Your task to perform on an android device: Open eBay Image 0: 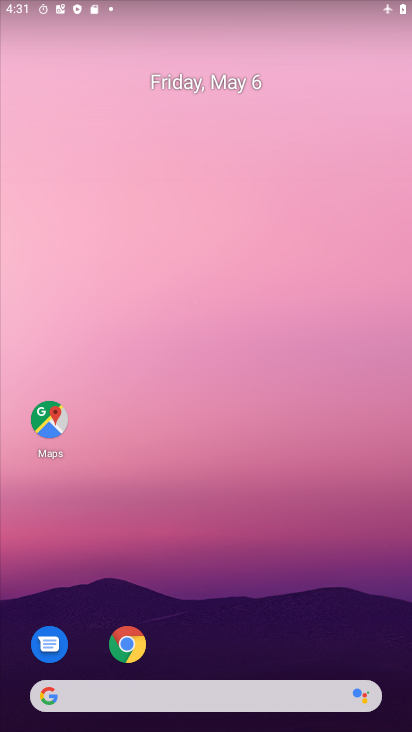
Step 0: drag from (279, 579) to (191, 146)
Your task to perform on an android device: Open eBay Image 1: 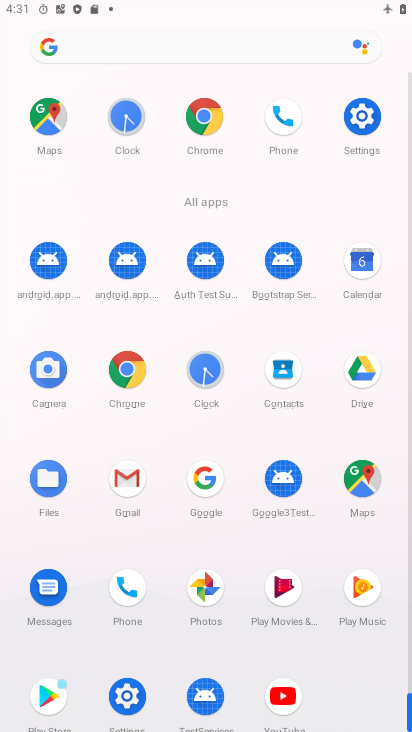
Step 1: click (207, 115)
Your task to perform on an android device: Open eBay Image 2: 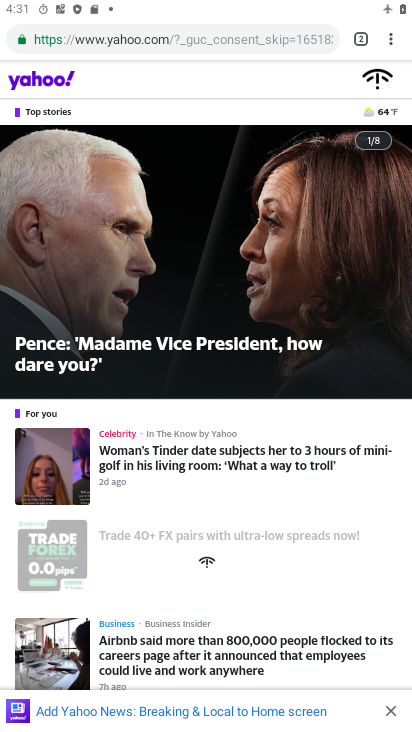
Step 2: drag from (396, 37) to (259, 121)
Your task to perform on an android device: Open eBay Image 3: 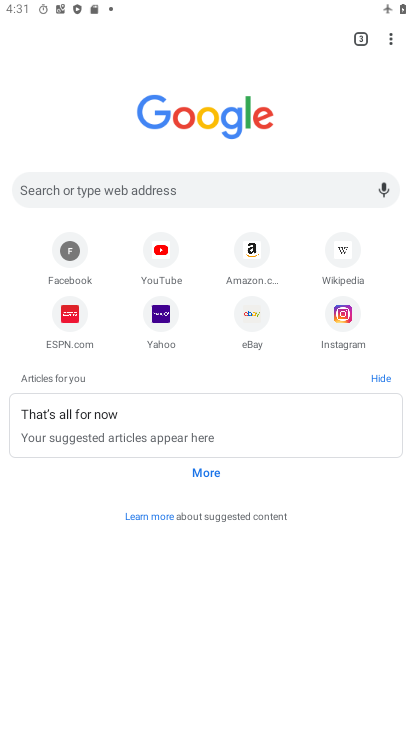
Step 3: click (248, 316)
Your task to perform on an android device: Open eBay Image 4: 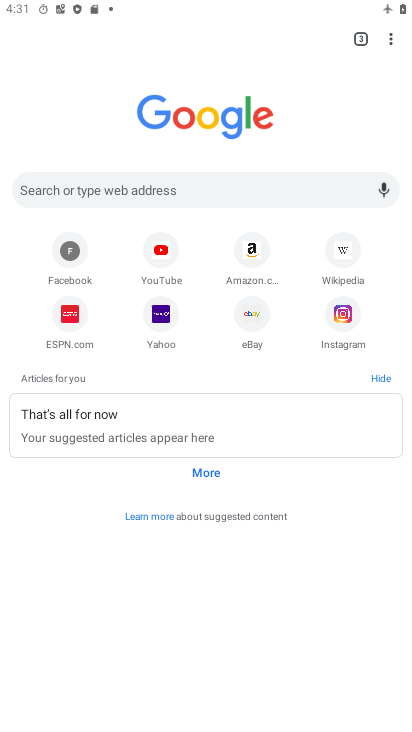
Step 4: click (248, 316)
Your task to perform on an android device: Open eBay Image 5: 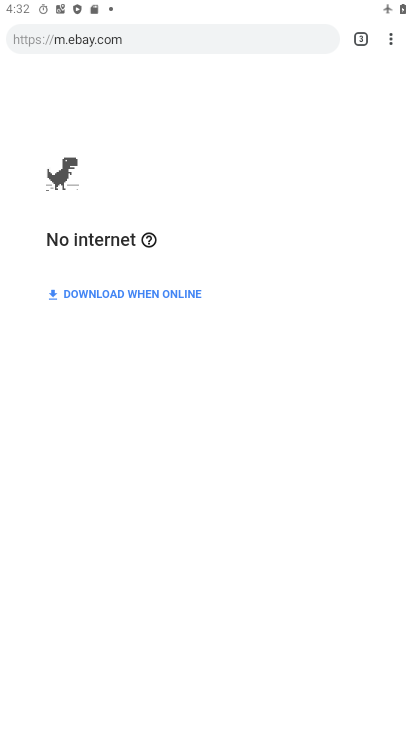
Step 5: task complete